Your task to perform on an android device: turn pop-ups on in chrome Image 0: 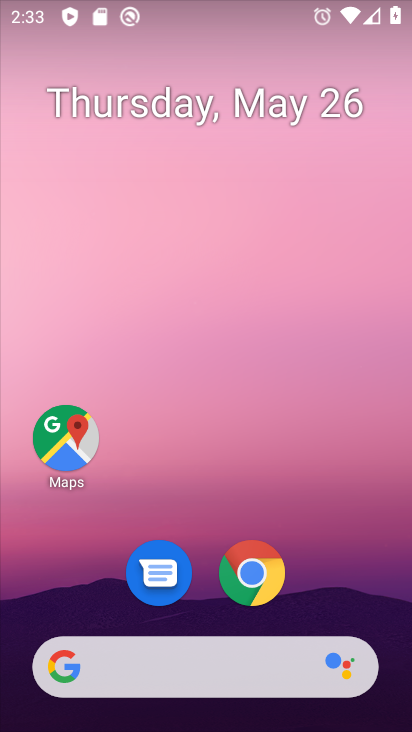
Step 0: click (252, 571)
Your task to perform on an android device: turn pop-ups on in chrome Image 1: 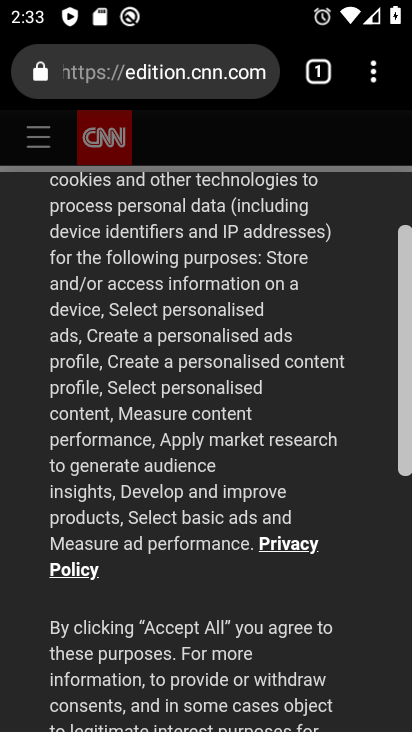
Step 1: click (375, 69)
Your task to perform on an android device: turn pop-ups on in chrome Image 2: 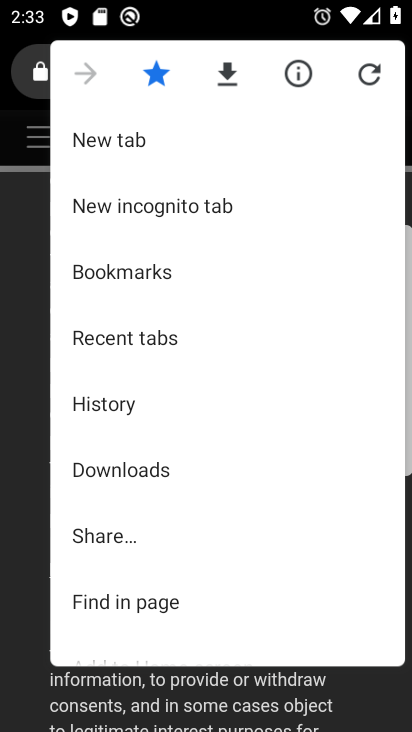
Step 2: drag from (135, 489) to (184, 406)
Your task to perform on an android device: turn pop-ups on in chrome Image 3: 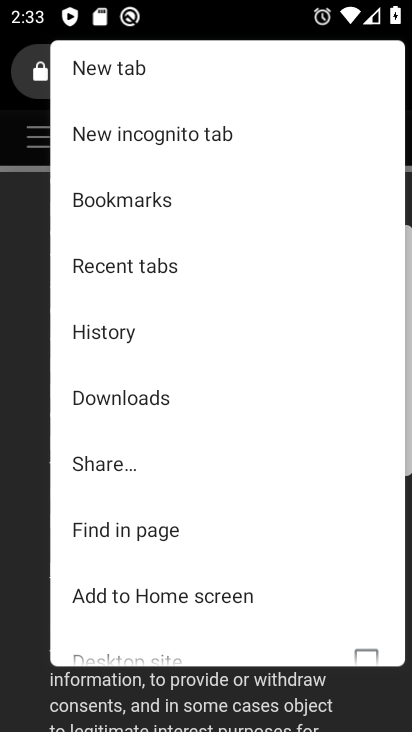
Step 3: drag from (116, 493) to (192, 390)
Your task to perform on an android device: turn pop-ups on in chrome Image 4: 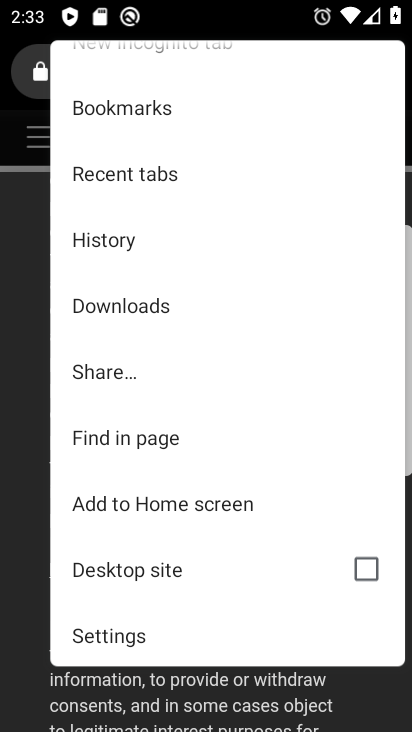
Step 4: drag from (120, 465) to (189, 375)
Your task to perform on an android device: turn pop-ups on in chrome Image 5: 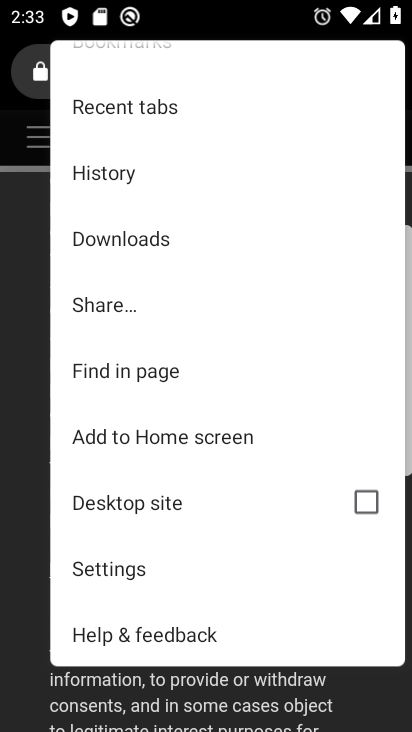
Step 5: drag from (114, 477) to (192, 373)
Your task to perform on an android device: turn pop-ups on in chrome Image 6: 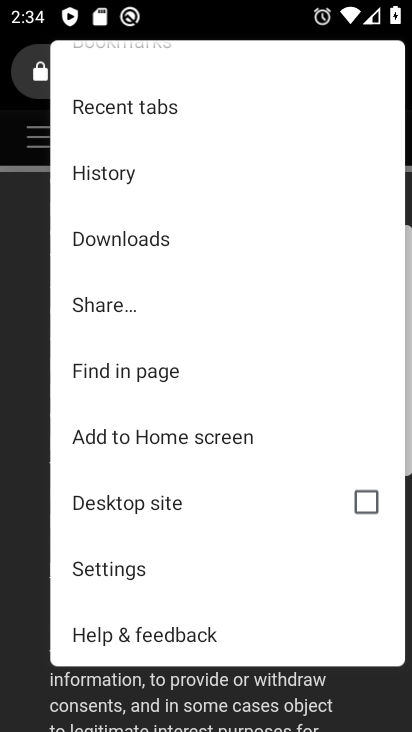
Step 6: click (115, 570)
Your task to perform on an android device: turn pop-ups on in chrome Image 7: 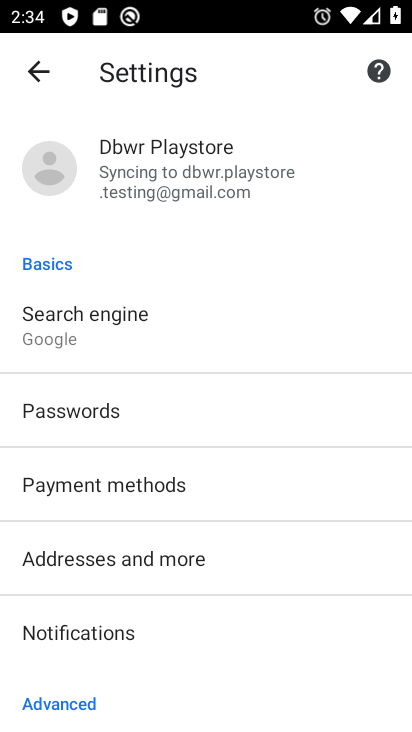
Step 7: drag from (104, 572) to (142, 462)
Your task to perform on an android device: turn pop-ups on in chrome Image 8: 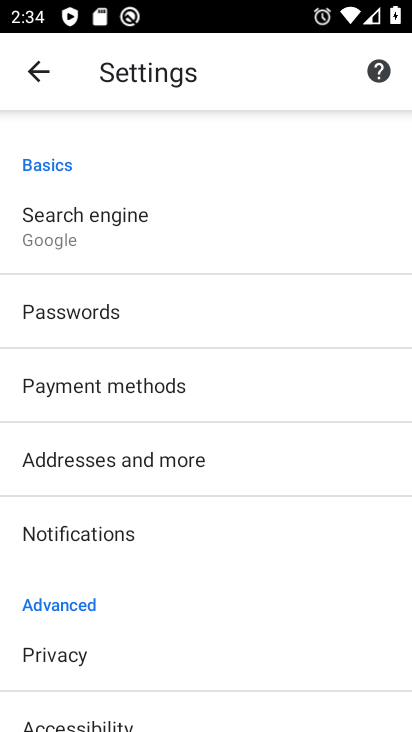
Step 8: drag from (87, 560) to (141, 460)
Your task to perform on an android device: turn pop-ups on in chrome Image 9: 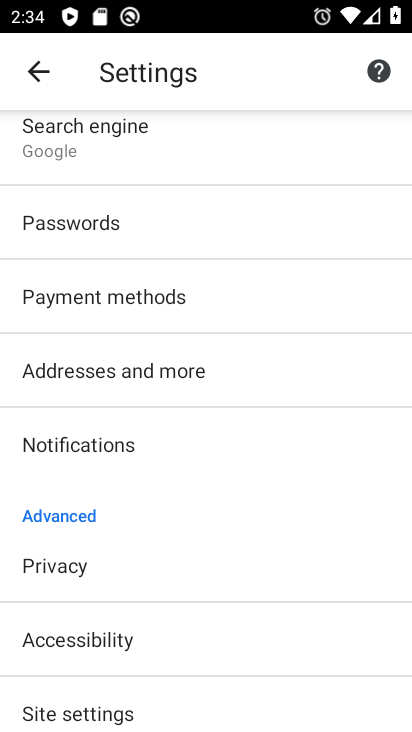
Step 9: drag from (101, 659) to (155, 541)
Your task to perform on an android device: turn pop-ups on in chrome Image 10: 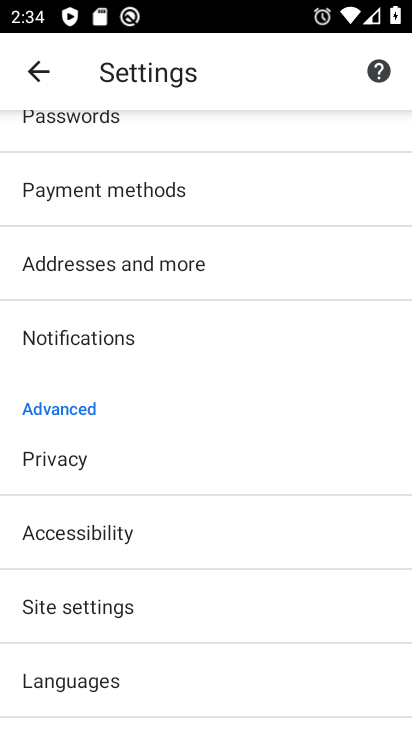
Step 10: click (97, 606)
Your task to perform on an android device: turn pop-ups on in chrome Image 11: 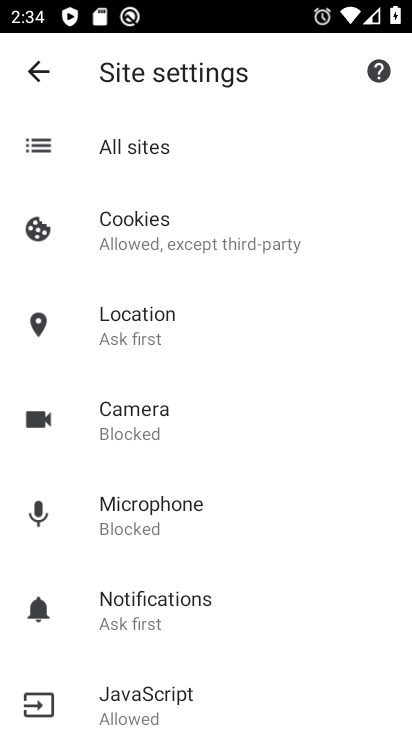
Step 11: drag from (186, 563) to (230, 467)
Your task to perform on an android device: turn pop-ups on in chrome Image 12: 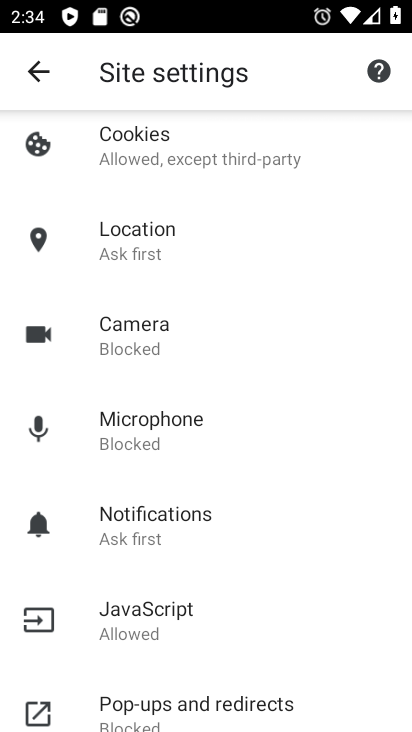
Step 12: drag from (155, 658) to (192, 495)
Your task to perform on an android device: turn pop-ups on in chrome Image 13: 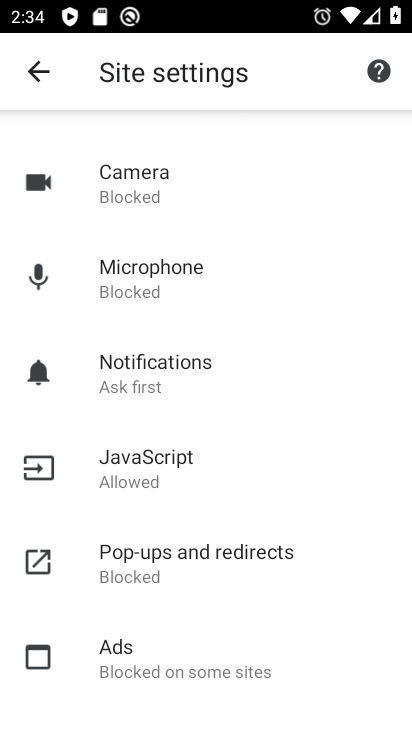
Step 13: click (180, 560)
Your task to perform on an android device: turn pop-ups on in chrome Image 14: 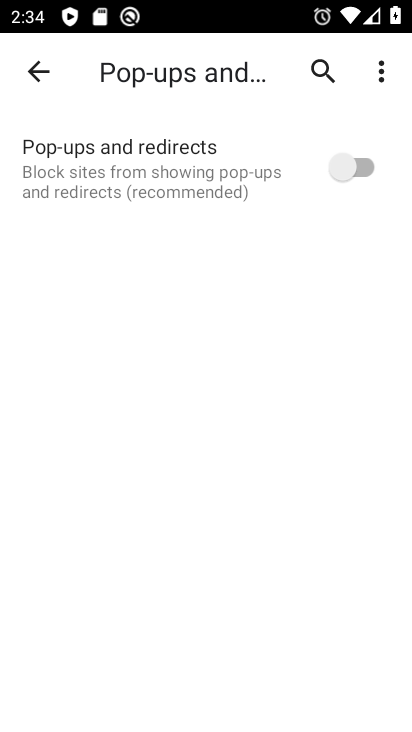
Step 14: click (366, 167)
Your task to perform on an android device: turn pop-ups on in chrome Image 15: 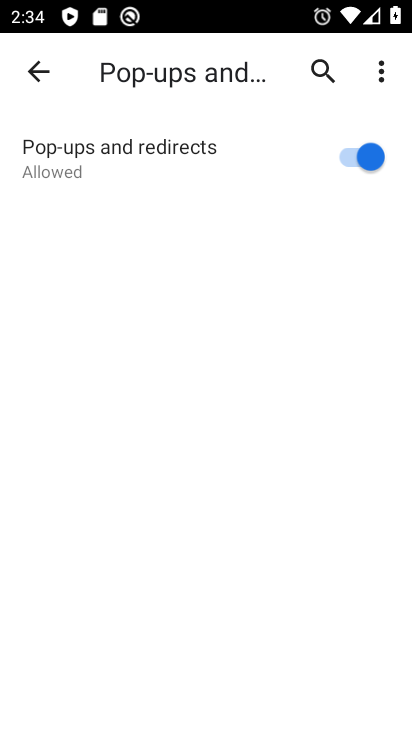
Step 15: task complete